Your task to perform on an android device: turn pop-ups off in chrome Image 0: 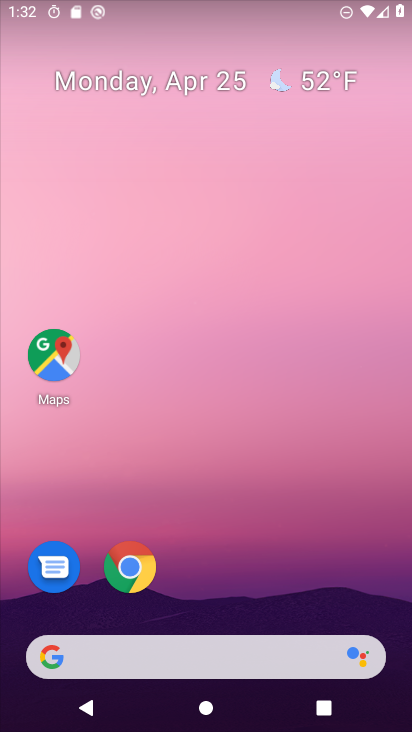
Step 0: click (118, 561)
Your task to perform on an android device: turn pop-ups off in chrome Image 1: 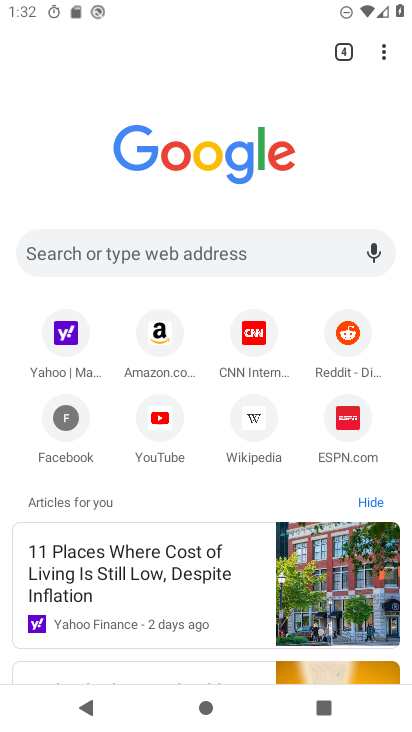
Step 1: click (385, 51)
Your task to perform on an android device: turn pop-ups off in chrome Image 2: 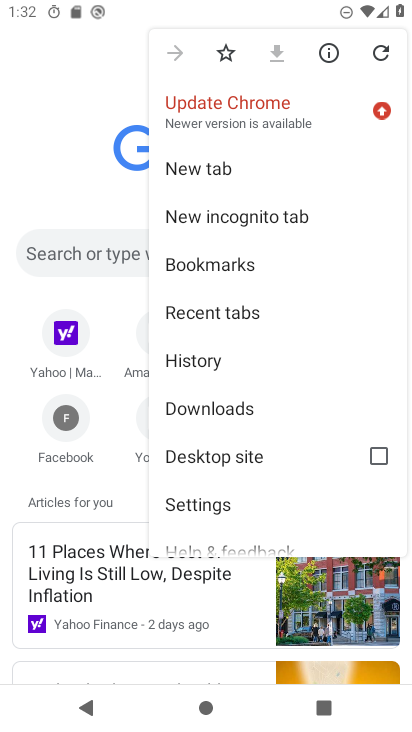
Step 2: click (216, 498)
Your task to perform on an android device: turn pop-ups off in chrome Image 3: 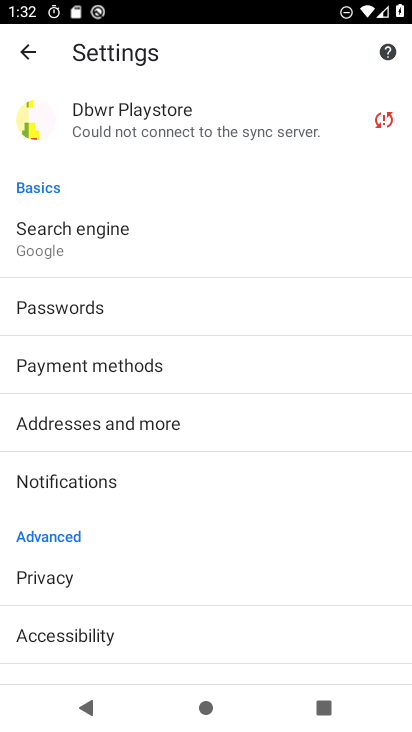
Step 3: drag from (265, 538) to (286, 313)
Your task to perform on an android device: turn pop-ups off in chrome Image 4: 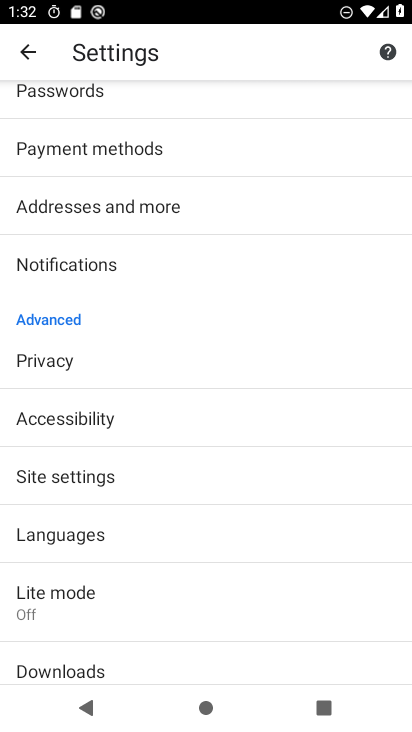
Step 4: click (178, 468)
Your task to perform on an android device: turn pop-ups off in chrome Image 5: 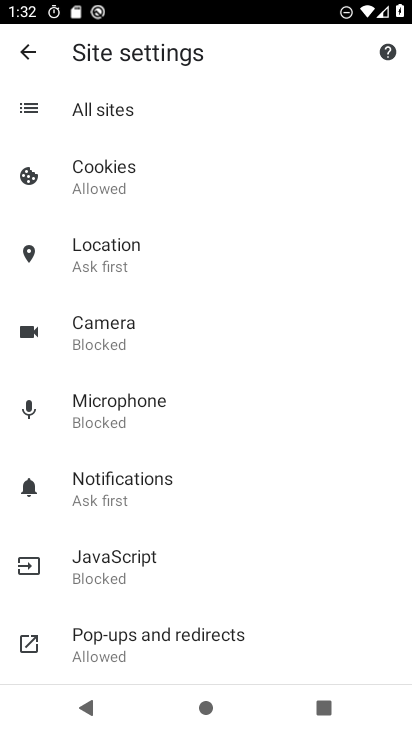
Step 5: click (191, 626)
Your task to perform on an android device: turn pop-ups off in chrome Image 6: 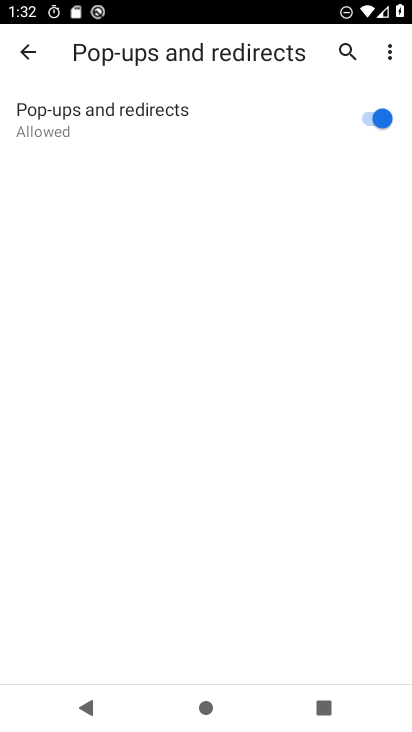
Step 6: click (368, 119)
Your task to perform on an android device: turn pop-ups off in chrome Image 7: 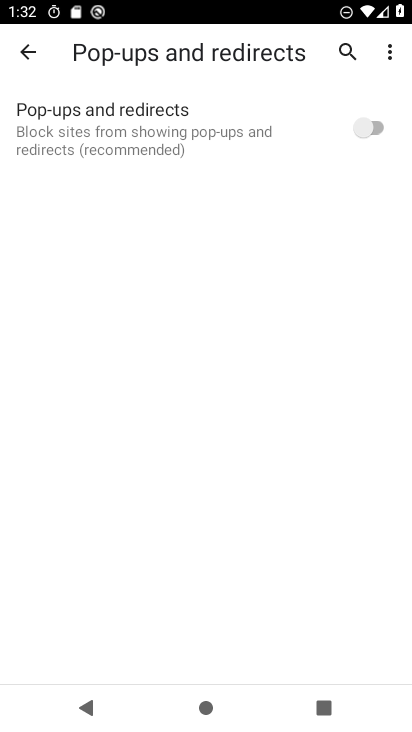
Step 7: task complete